Your task to perform on an android device: Open calendar and show me the second week of next month Image 0: 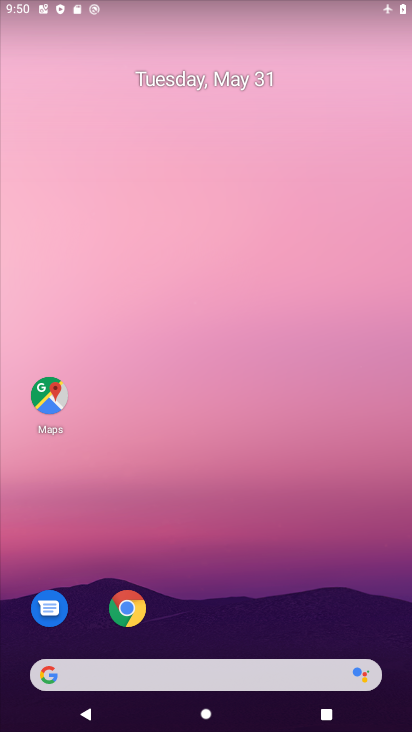
Step 0: drag from (268, 644) to (345, 24)
Your task to perform on an android device: Open calendar and show me the second week of next month Image 1: 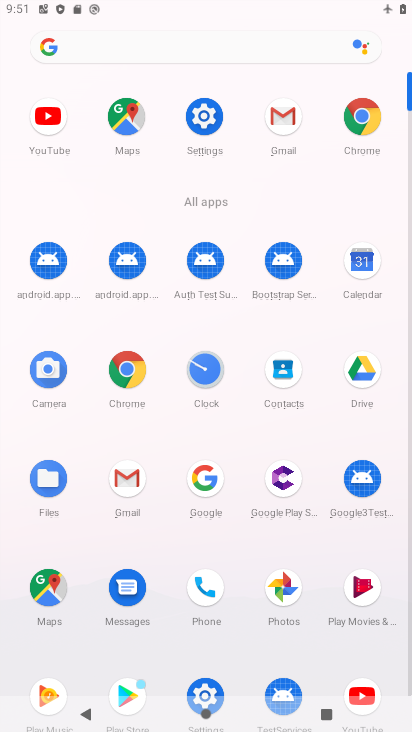
Step 1: click (366, 276)
Your task to perform on an android device: Open calendar and show me the second week of next month Image 2: 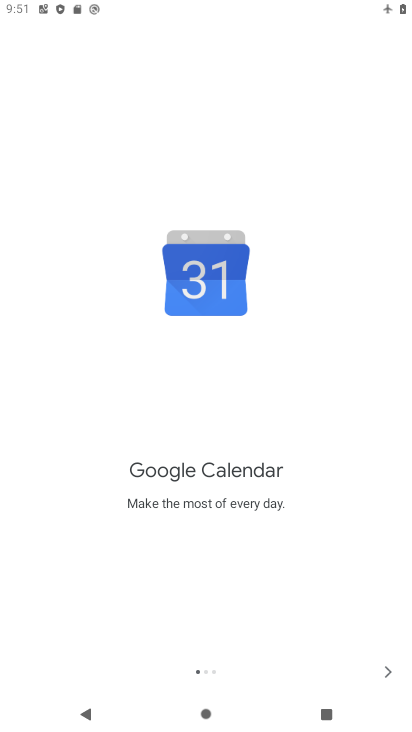
Step 2: click (389, 667)
Your task to perform on an android device: Open calendar and show me the second week of next month Image 3: 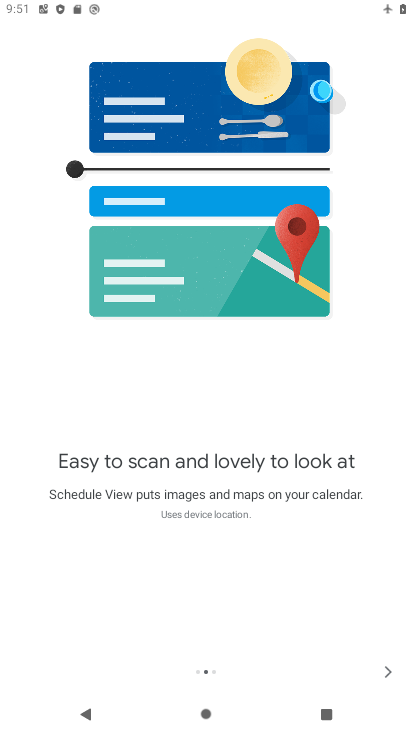
Step 3: click (388, 667)
Your task to perform on an android device: Open calendar and show me the second week of next month Image 4: 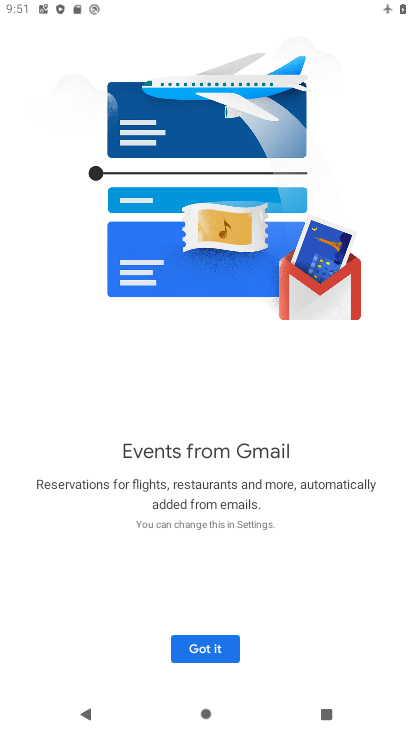
Step 4: click (187, 651)
Your task to perform on an android device: Open calendar and show me the second week of next month Image 5: 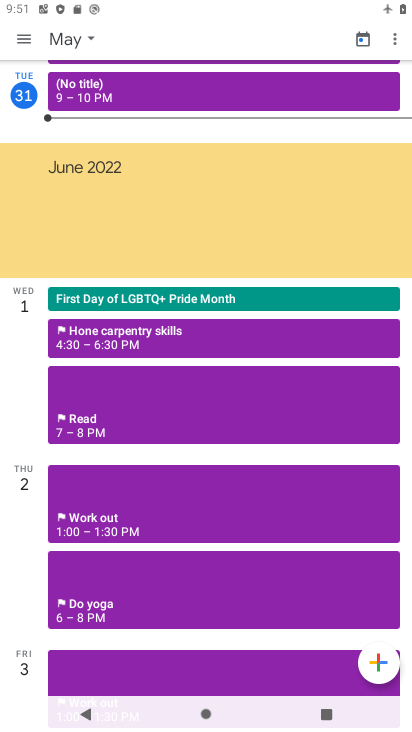
Step 5: click (19, 43)
Your task to perform on an android device: Open calendar and show me the second week of next month Image 6: 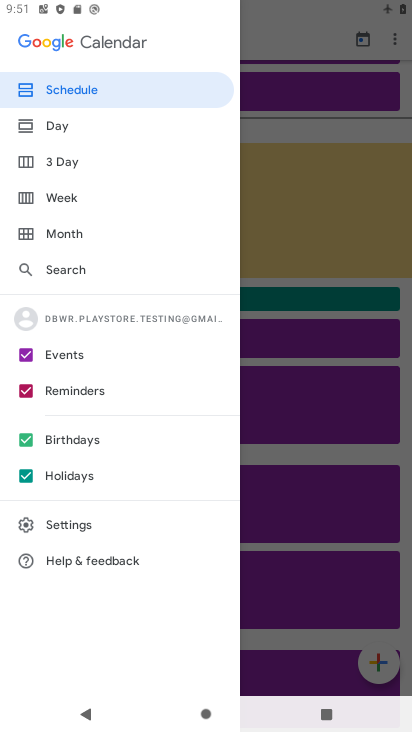
Step 6: click (57, 193)
Your task to perform on an android device: Open calendar and show me the second week of next month Image 7: 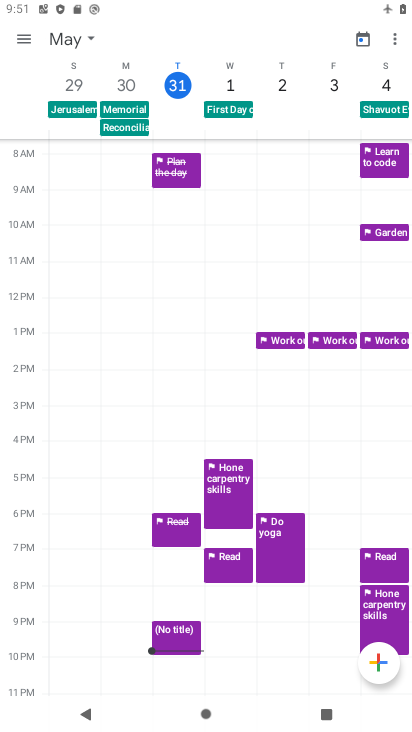
Step 7: task complete